Your task to perform on an android device: Find coffee shops on Maps Image 0: 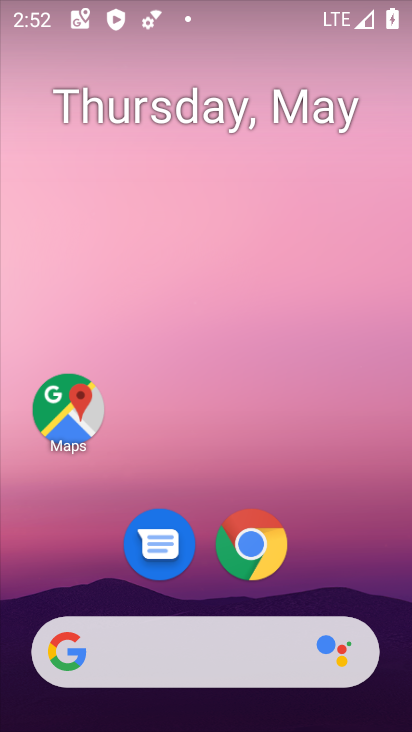
Step 0: click (81, 432)
Your task to perform on an android device: Find coffee shops on Maps Image 1: 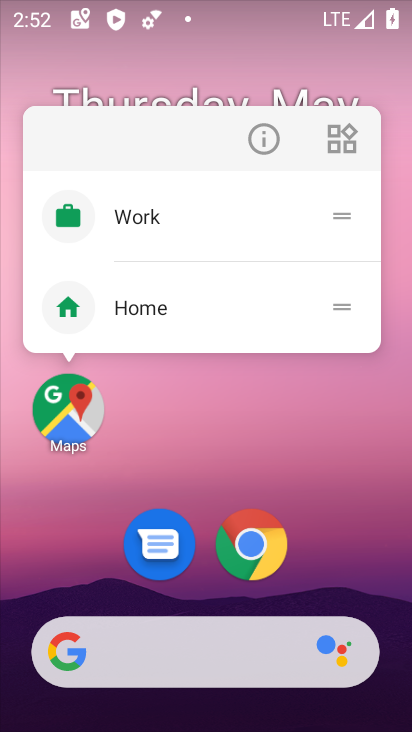
Step 1: click (79, 432)
Your task to perform on an android device: Find coffee shops on Maps Image 2: 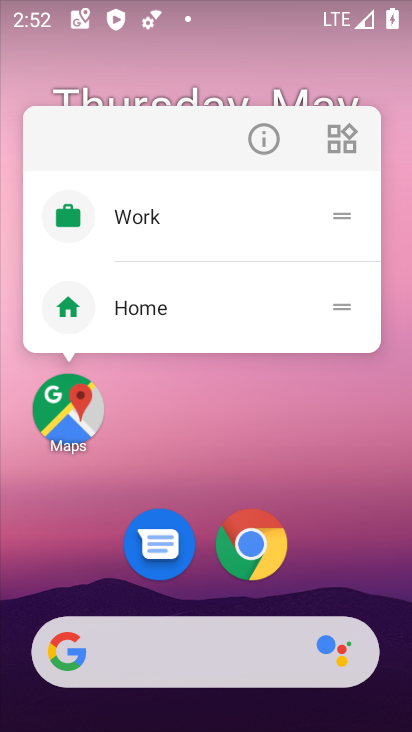
Step 2: click (79, 432)
Your task to perform on an android device: Find coffee shops on Maps Image 3: 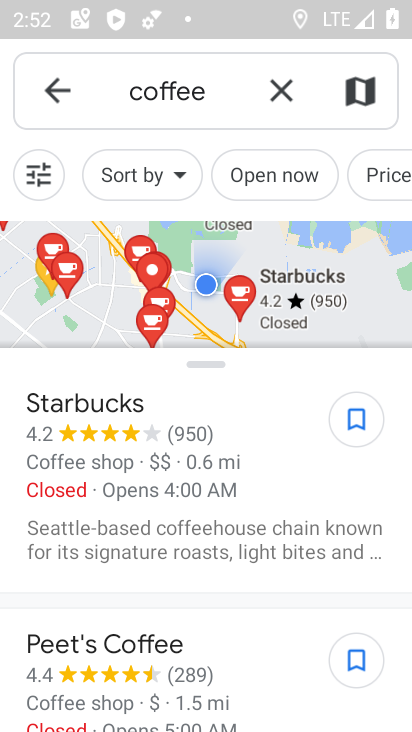
Step 3: task complete